Your task to perform on an android device: Go to location settings Image 0: 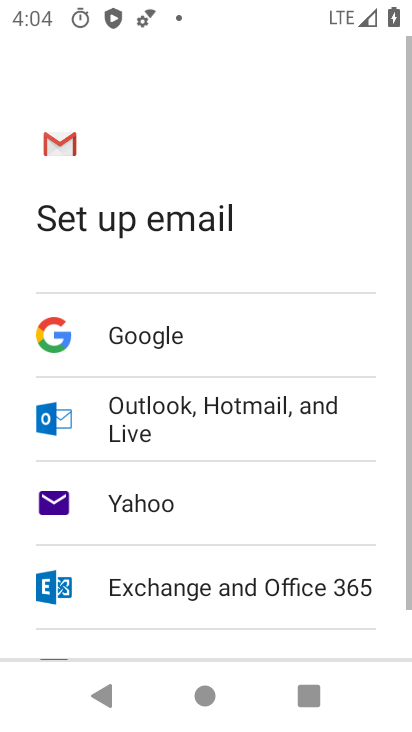
Step 0: press home button
Your task to perform on an android device: Go to location settings Image 1: 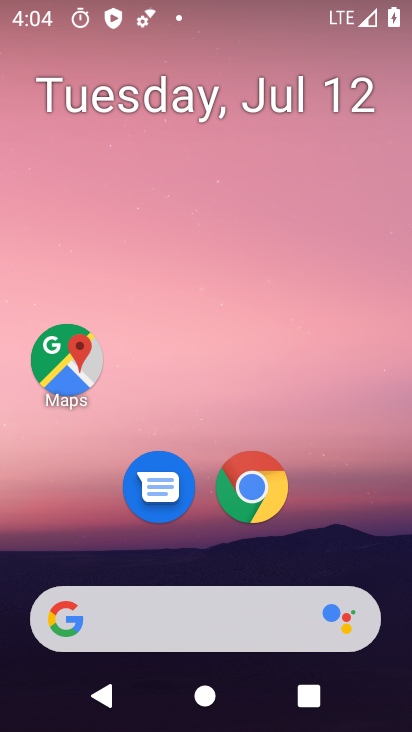
Step 1: drag from (212, 685) to (292, 51)
Your task to perform on an android device: Go to location settings Image 2: 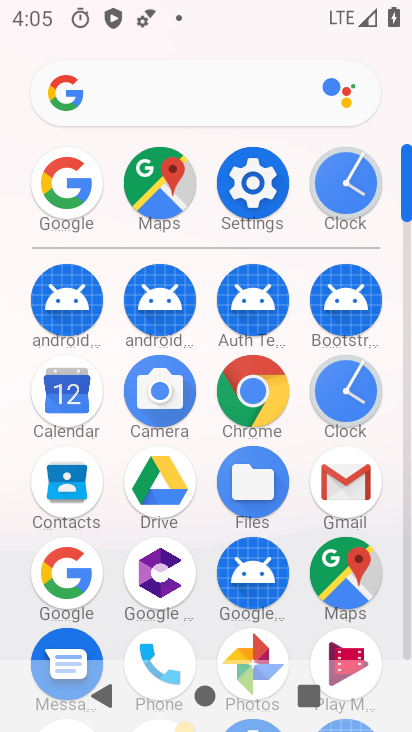
Step 2: click (260, 197)
Your task to perform on an android device: Go to location settings Image 3: 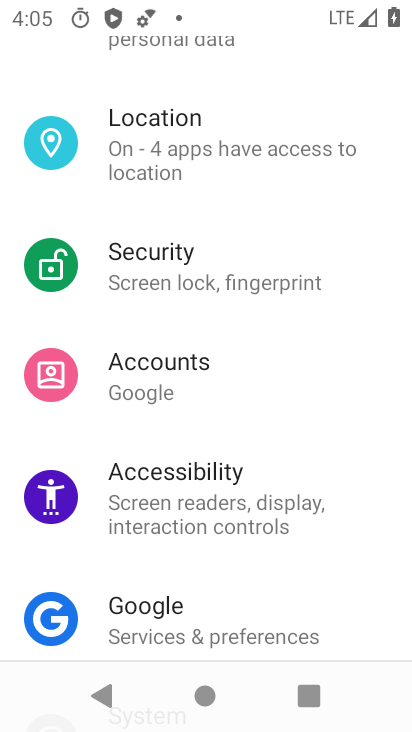
Step 3: drag from (214, 531) to (240, 216)
Your task to perform on an android device: Go to location settings Image 4: 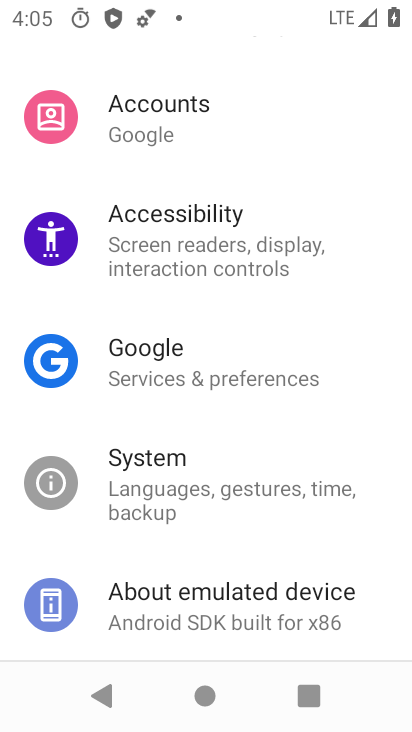
Step 4: drag from (191, 463) to (244, 75)
Your task to perform on an android device: Go to location settings Image 5: 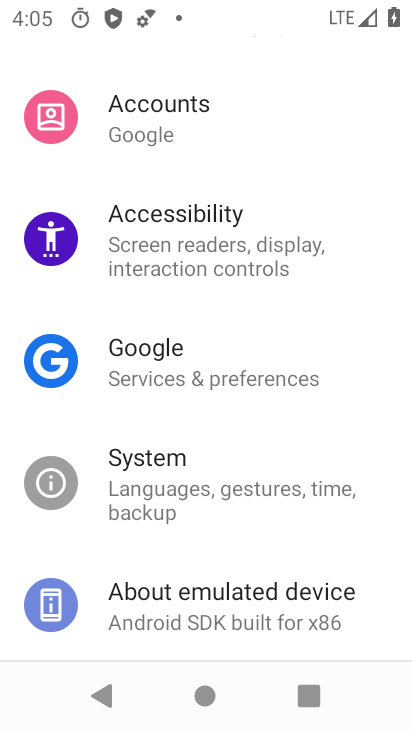
Step 5: drag from (243, 511) to (246, 144)
Your task to perform on an android device: Go to location settings Image 6: 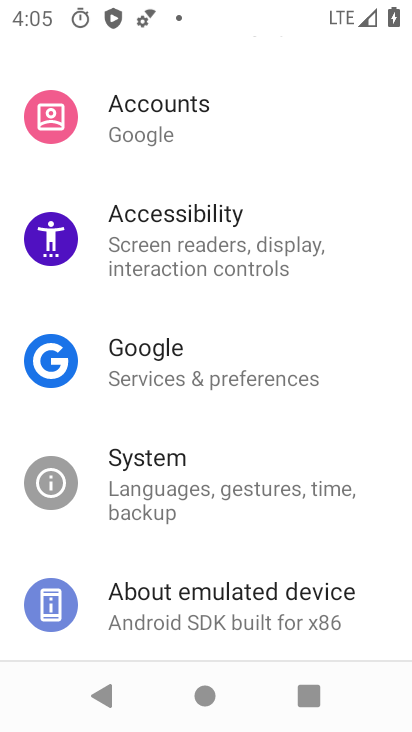
Step 6: drag from (205, 357) to (208, 599)
Your task to perform on an android device: Go to location settings Image 7: 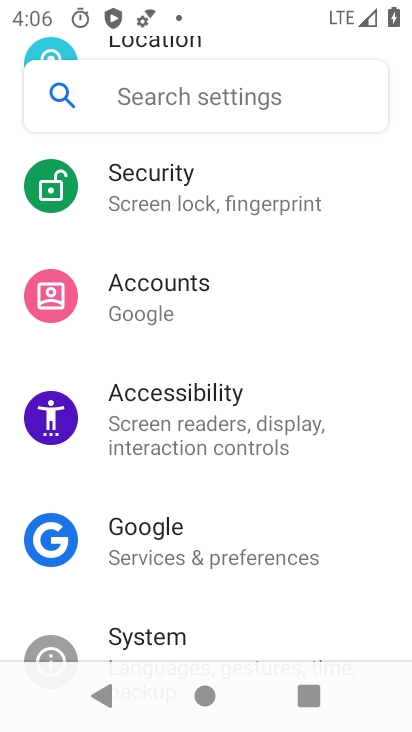
Step 7: drag from (198, 300) to (211, 702)
Your task to perform on an android device: Go to location settings Image 8: 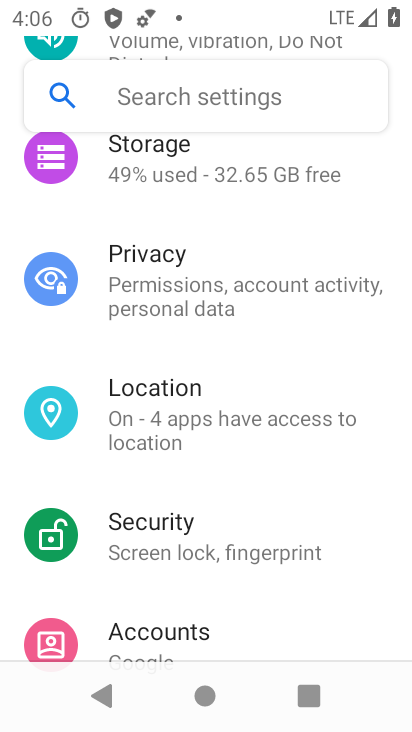
Step 8: click (227, 425)
Your task to perform on an android device: Go to location settings Image 9: 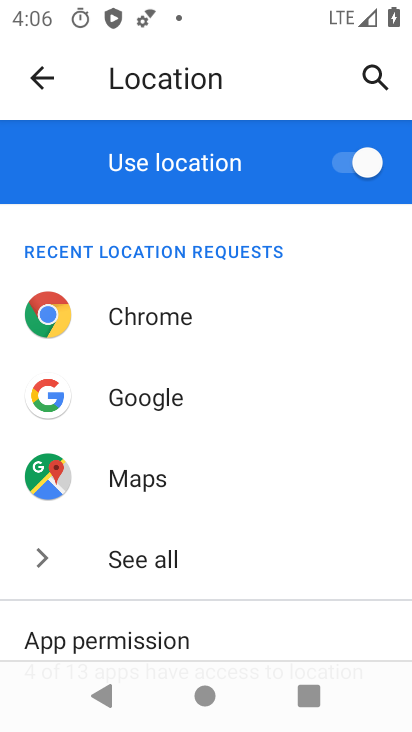
Step 9: task complete